Your task to perform on an android device: Open Yahoo.com Image 0: 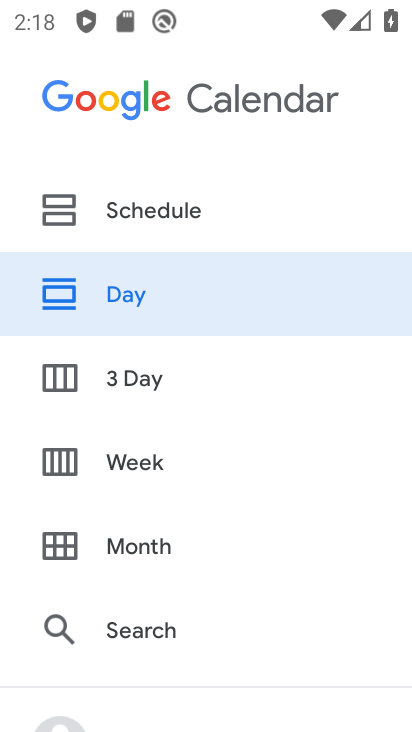
Step 0: press back button
Your task to perform on an android device: Open Yahoo.com Image 1: 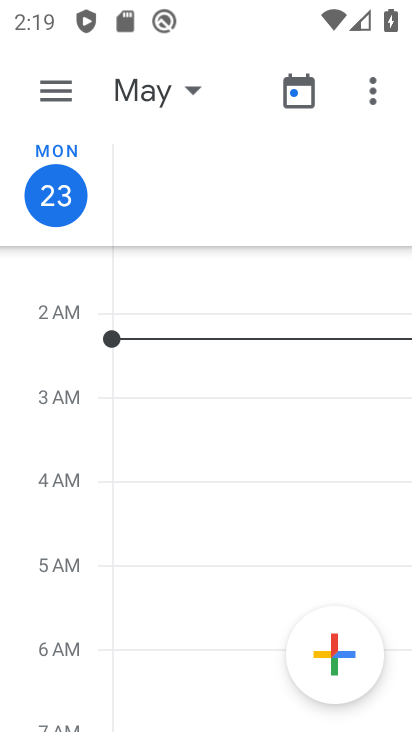
Step 1: press back button
Your task to perform on an android device: Open Yahoo.com Image 2: 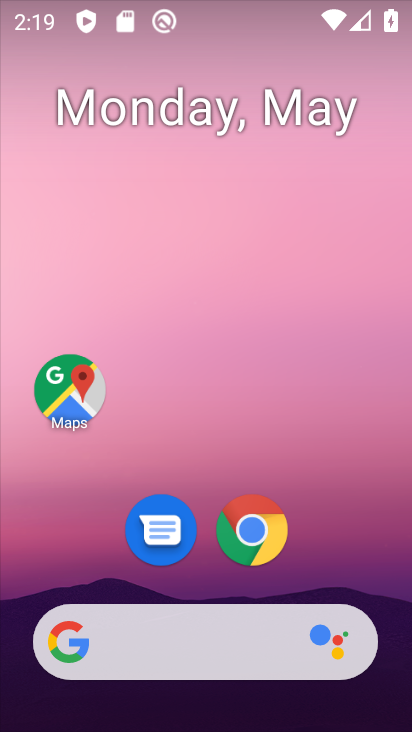
Step 2: click (270, 522)
Your task to perform on an android device: Open Yahoo.com Image 3: 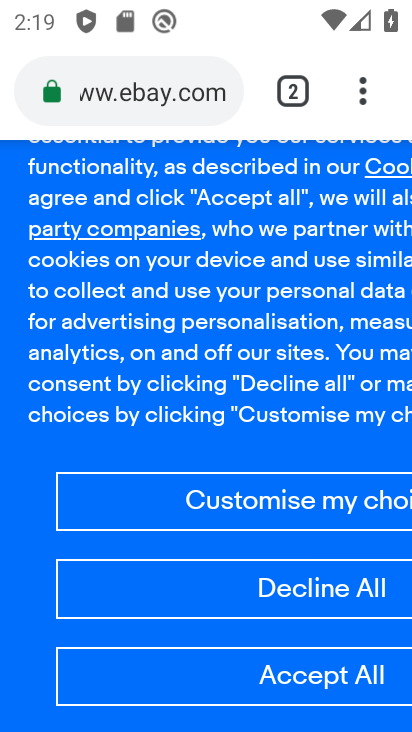
Step 3: click (244, 539)
Your task to perform on an android device: Open Yahoo.com Image 4: 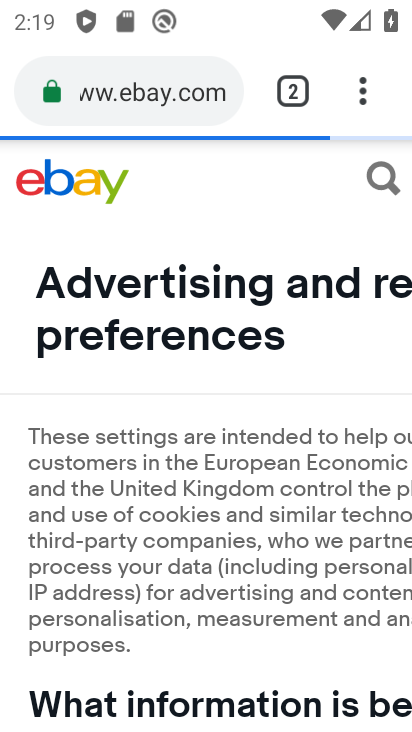
Step 4: click (283, 85)
Your task to perform on an android device: Open Yahoo.com Image 5: 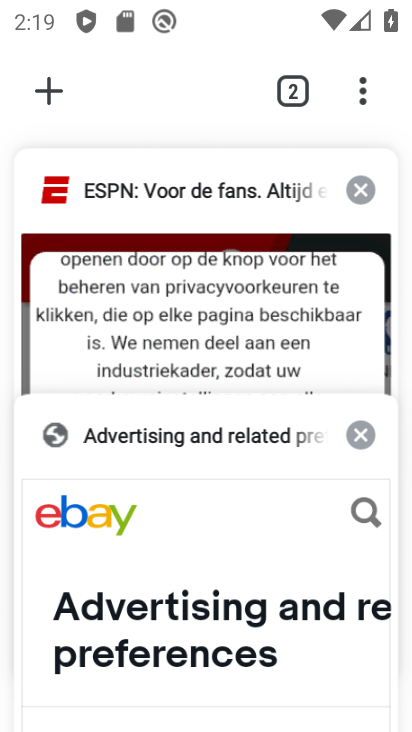
Step 5: click (50, 94)
Your task to perform on an android device: Open Yahoo.com Image 6: 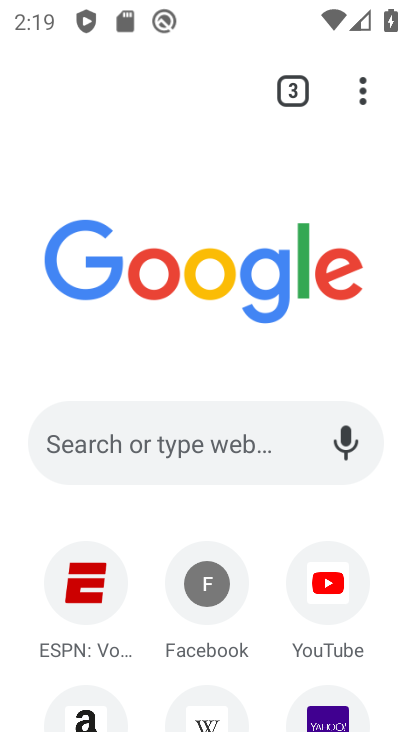
Step 6: click (316, 702)
Your task to perform on an android device: Open Yahoo.com Image 7: 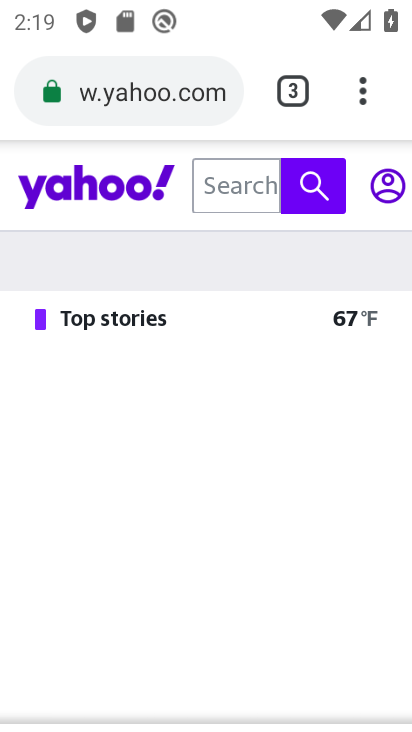
Step 7: task complete